Your task to perform on an android device: Search for "acer predator" on ebay.com, select the first entry, add it to the cart, then select checkout. Image 0: 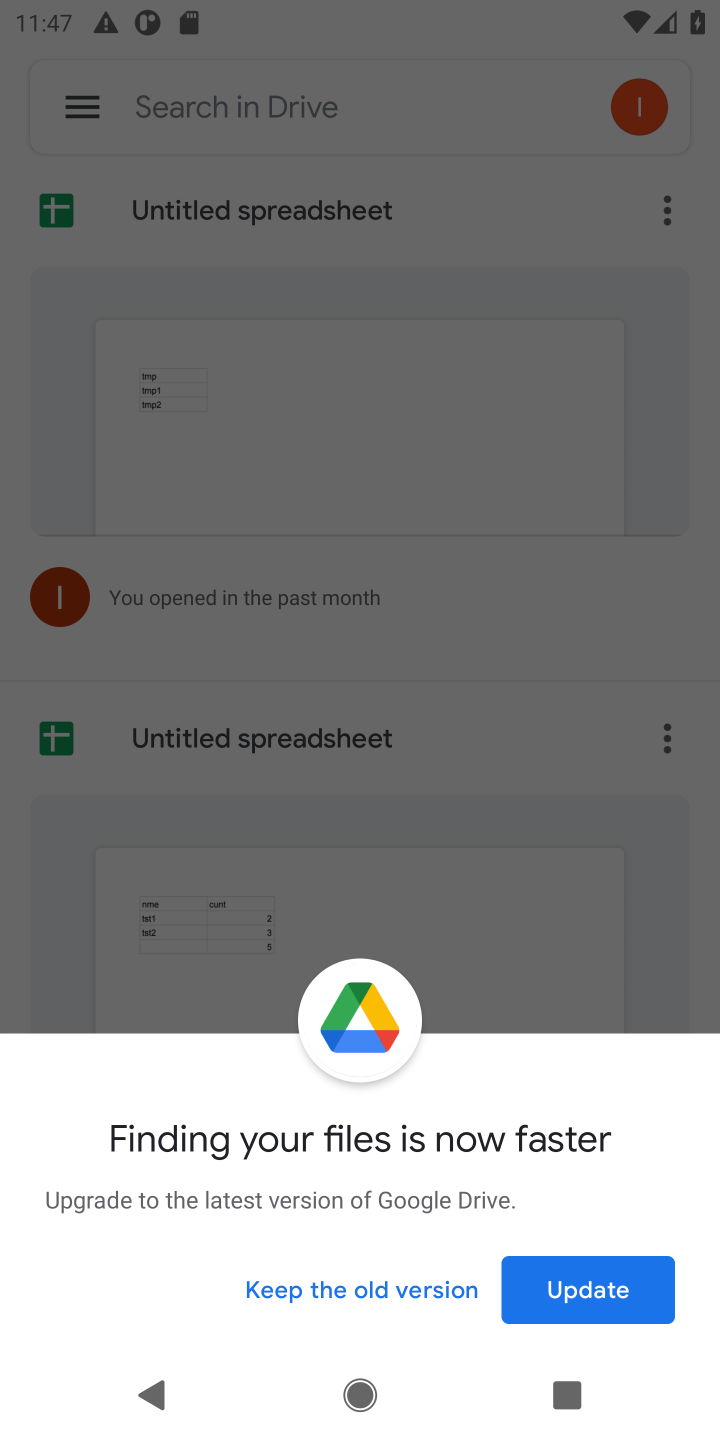
Step 0: press home button
Your task to perform on an android device: Search for "acer predator" on ebay.com, select the first entry, add it to the cart, then select checkout. Image 1: 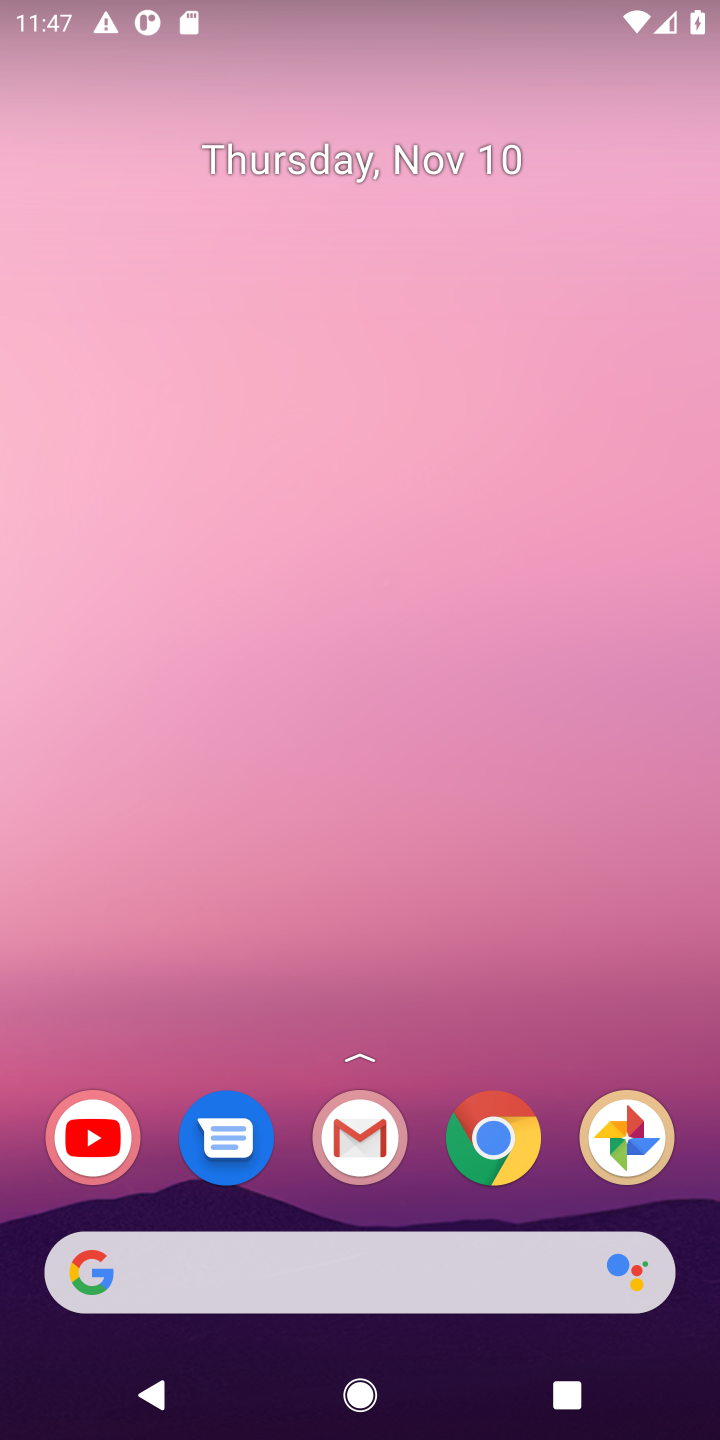
Step 1: click (490, 1134)
Your task to perform on an android device: Search for "acer predator" on ebay.com, select the first entry, add it to the cart, then select checkout. Image 2: 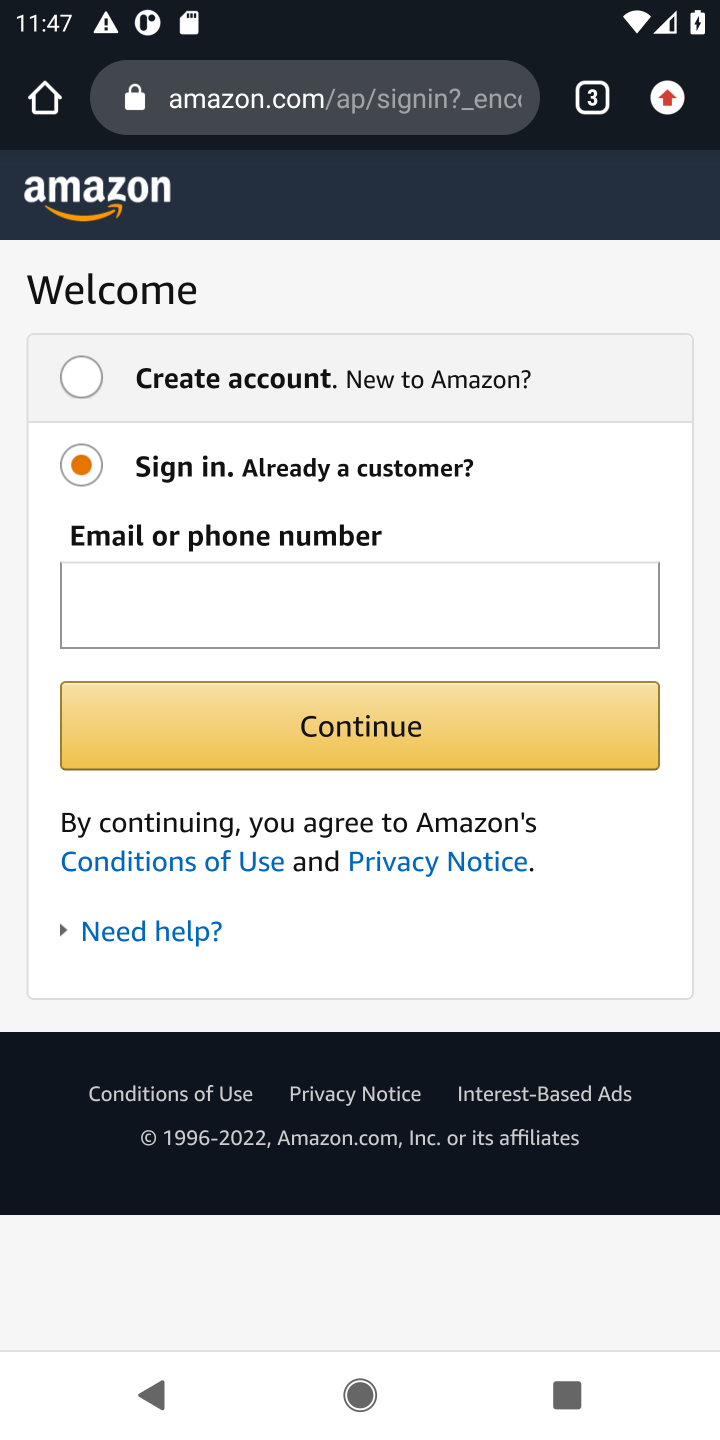
Step 2: click (581, 78)
Your task to perform on an android device: Search for "acer predator" on ebay.com, select the first entry, add it to the cart, then select checkout. Image 3: 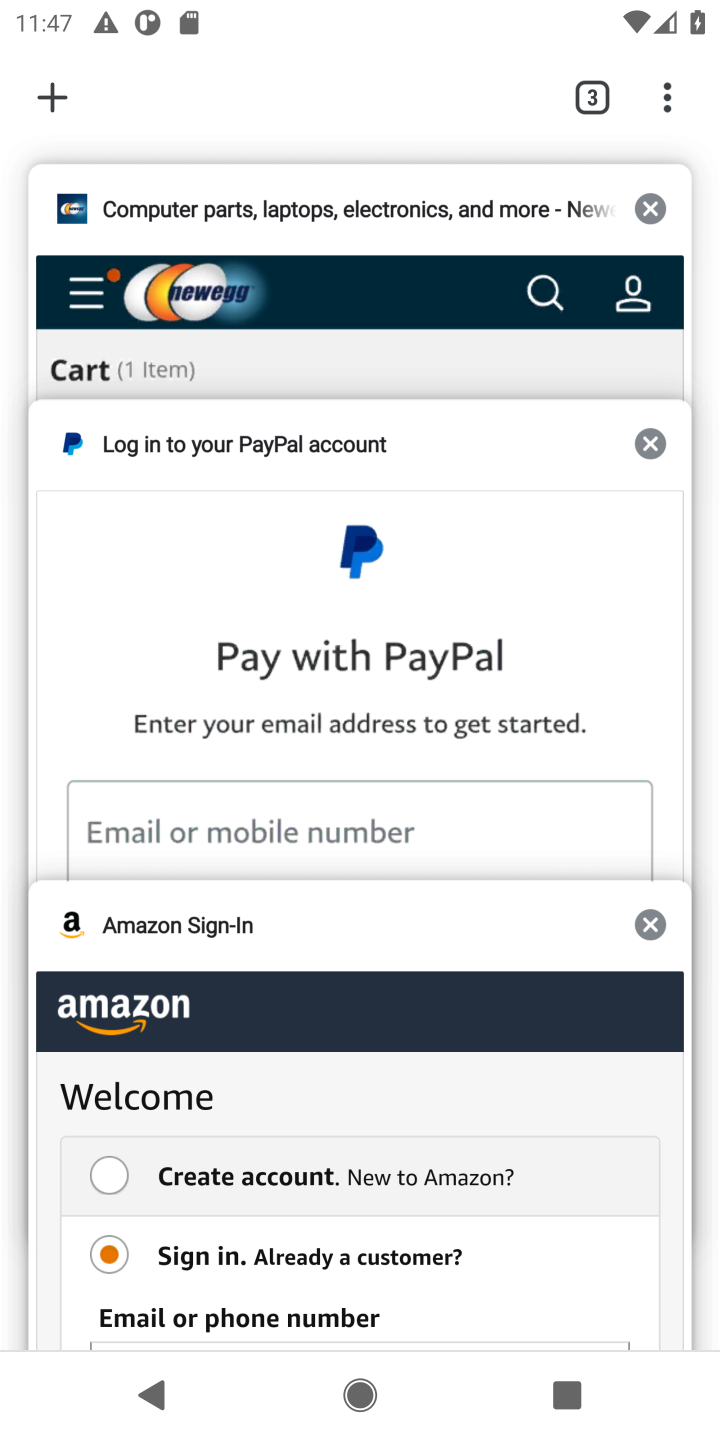
Step 3: click (254, 509)
Your task to perform on an android device: Search for "acer predator" on ebay.com, select the first entry, add it to the cart, then select checkout. Image 4: 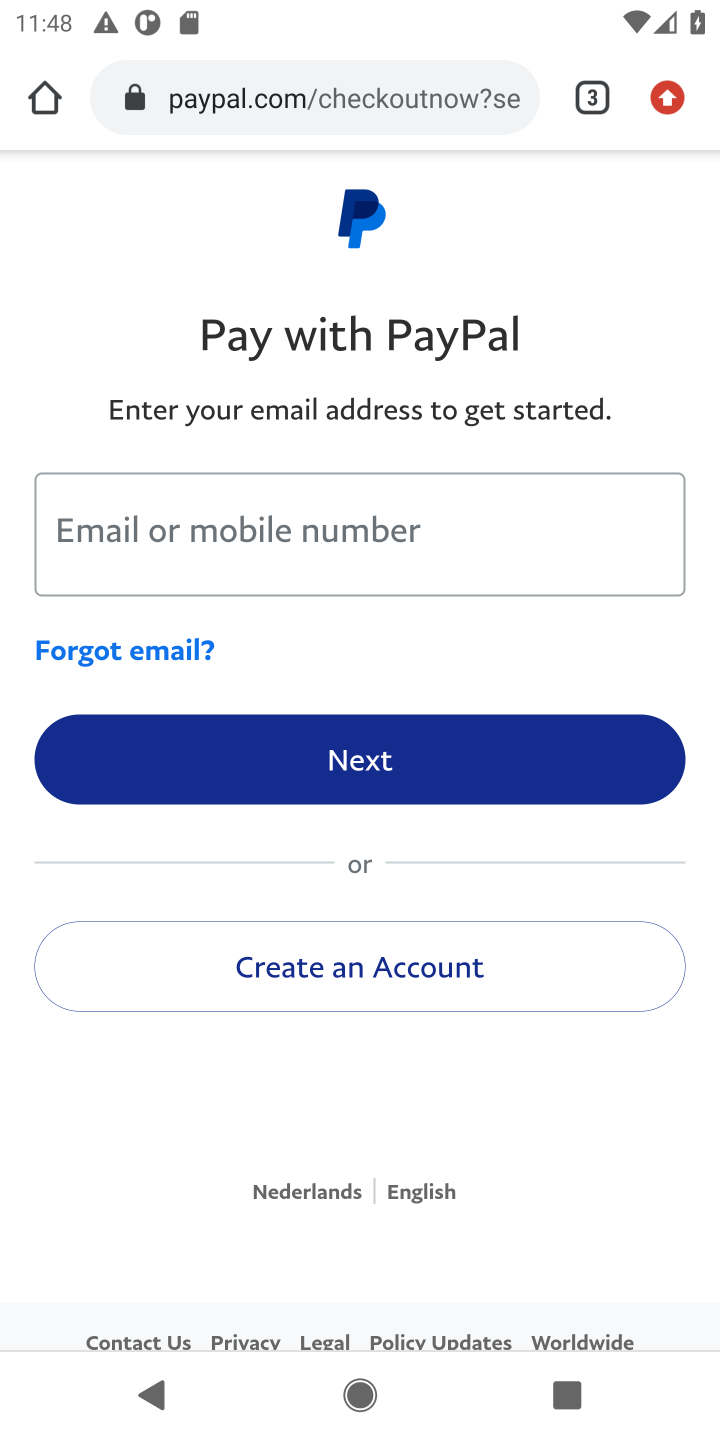
Step 4: press back button
Your task to perform on an android device: Search for "acer predator" on ebay.com, select the first entry, add it to the cart, then select checkout. Image 5: 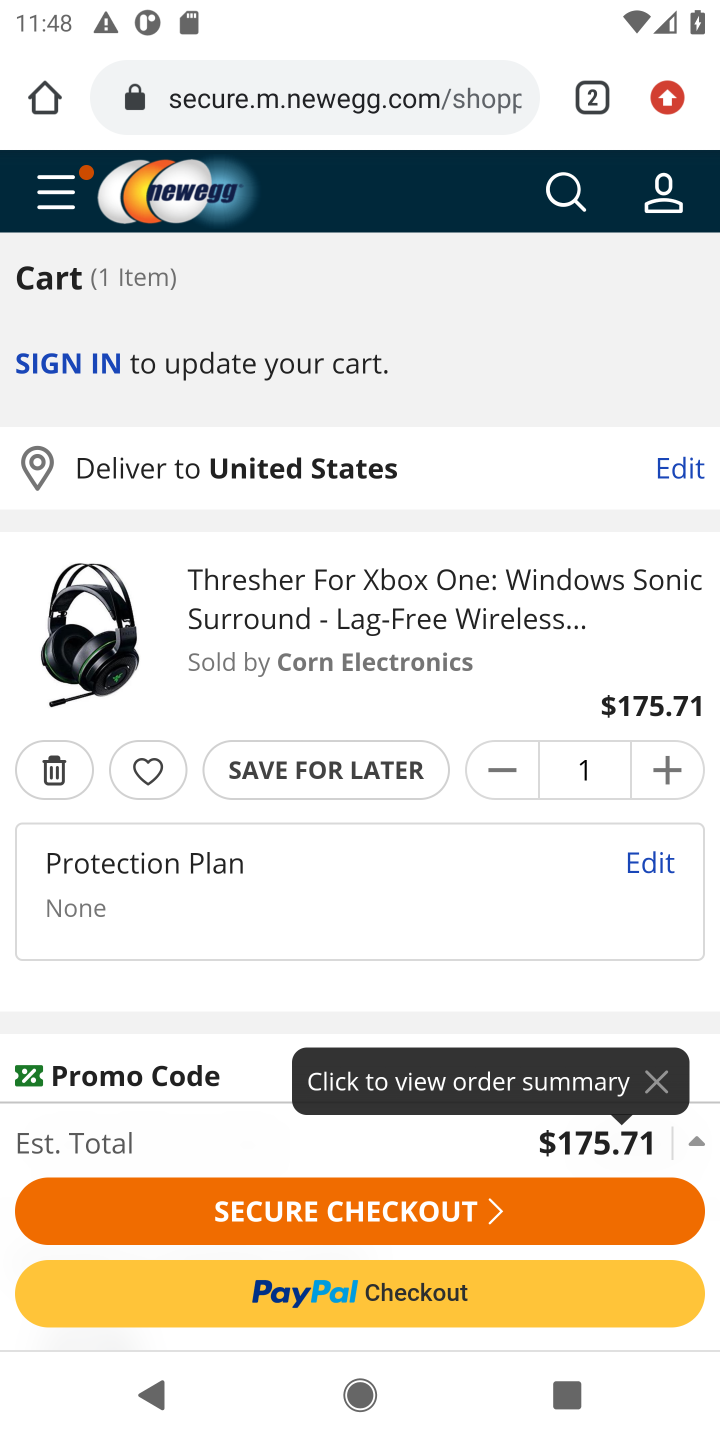
Step 5: click (586, 104)
Your task to perform on an android device: Search for "acer predator" on ebay.com, select the first entry, add it to the cart, then select checkout. Image 6: 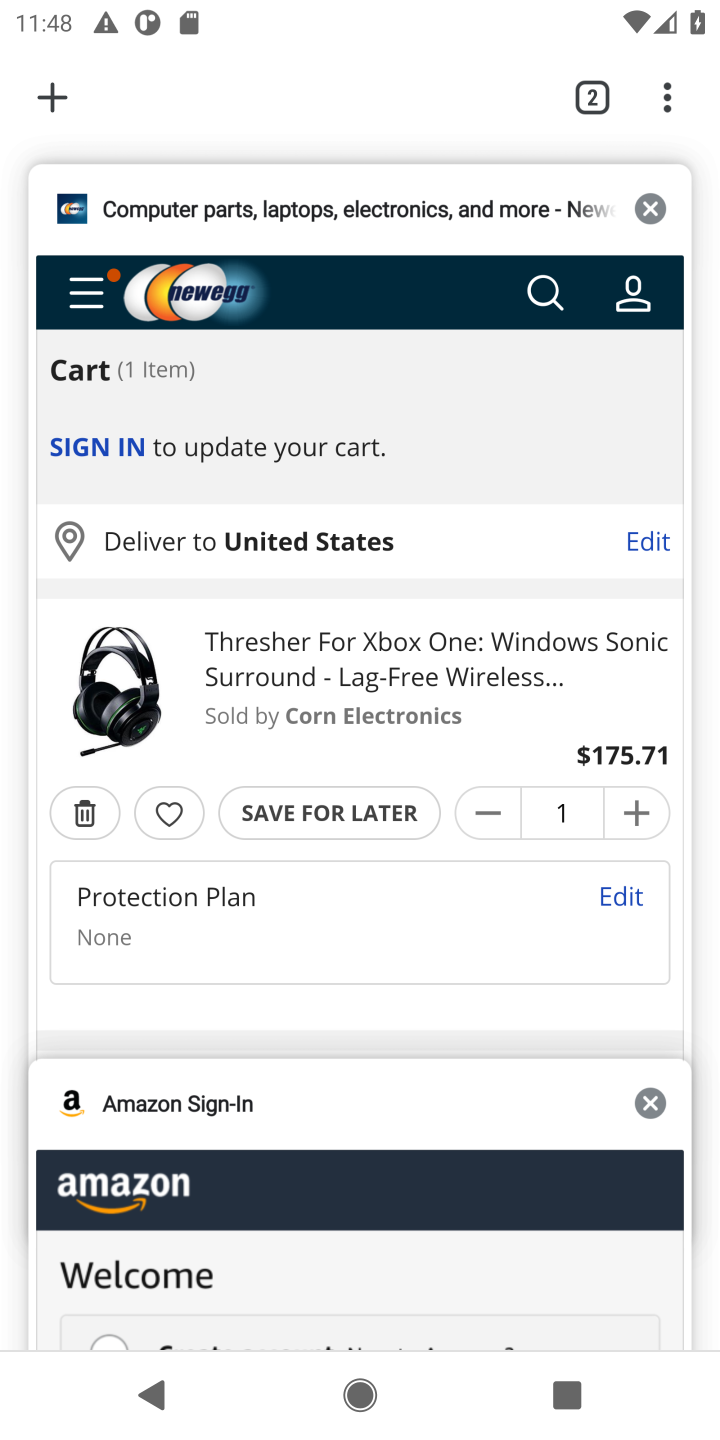
Step 6: click (53, 81)
Your task to perform on an android device: Search for "acer predator" on ebay.com, select the first entry, add it to the cart, then select checkout. Image 7: 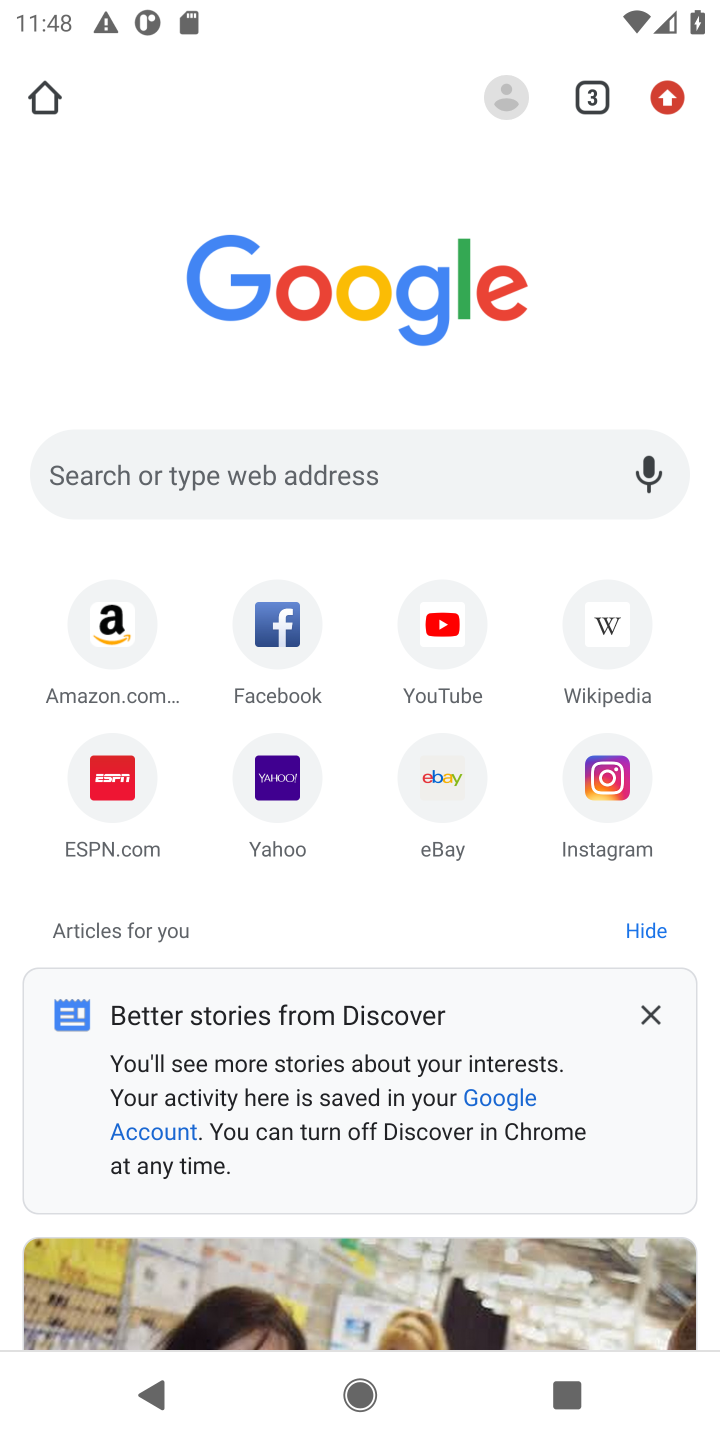
Step 7: click (442, 774)
Your task to perform on an android device: Search for "acer predator" on ebay.com, select the first entry, add it to the cart, then select checkout. Image 8: 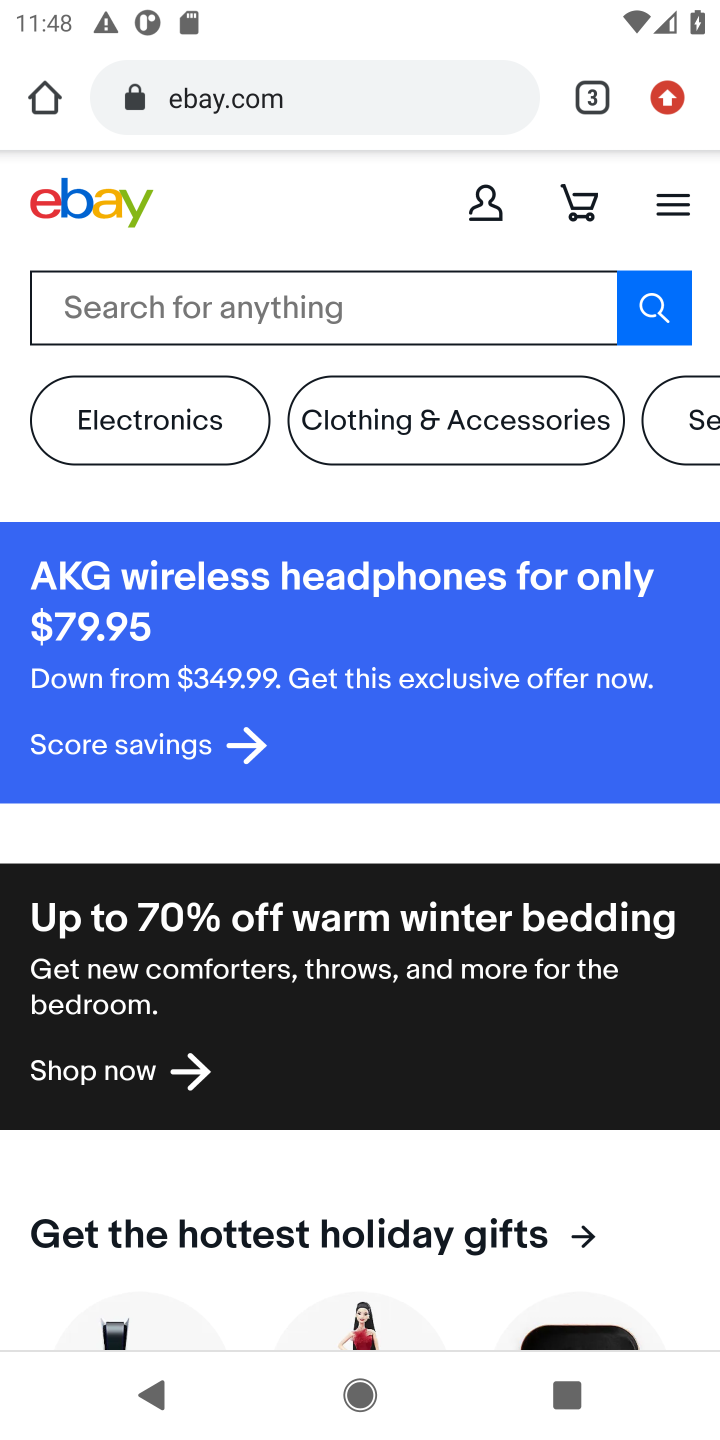
Step 8: click (283, 293)
Your task to perform on an android device: Search for "acer predator" on ebay.com, select the first entry, add it to the cart, then select checkout. Image 9: 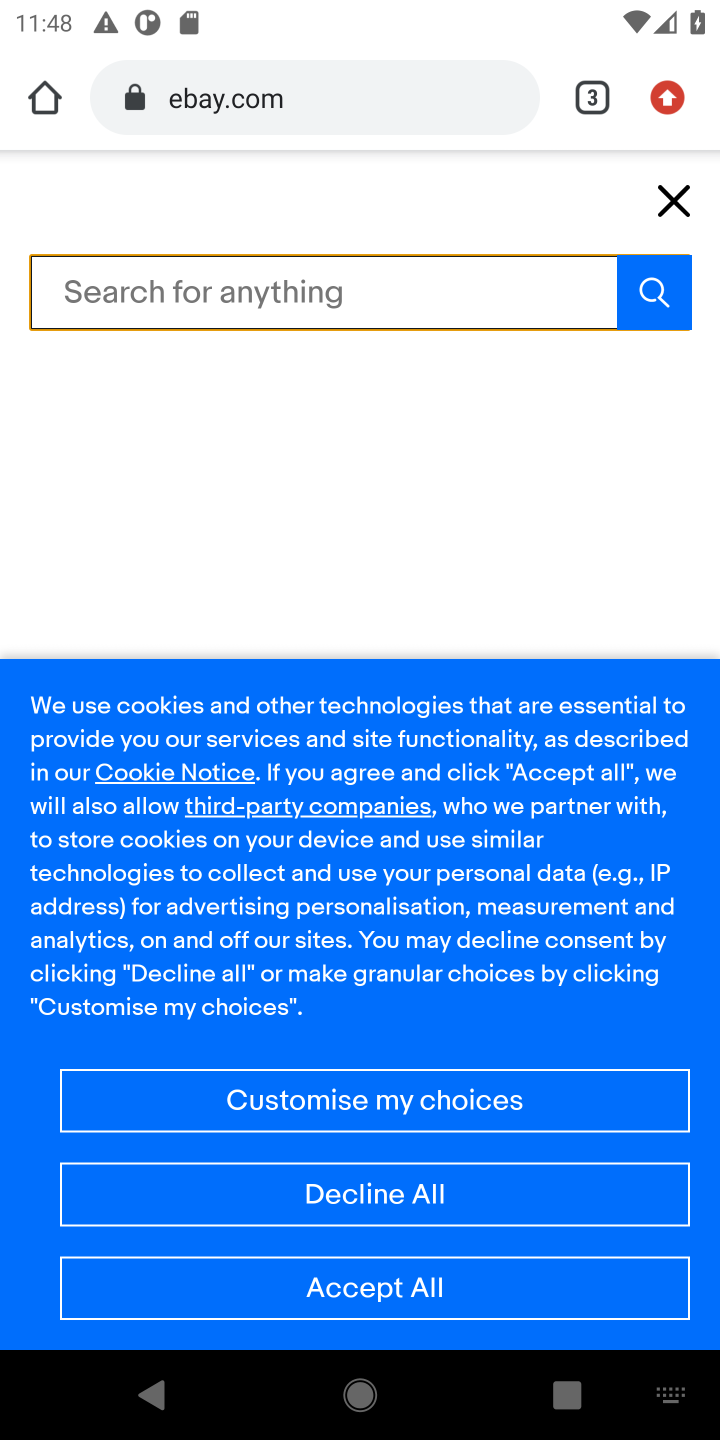
Step 9: type "acer predator"
Your task to perform on an android device: Search for "acer predator" on ebay.com, select the first entry, add it to the cart, then select checkout. Image 10: 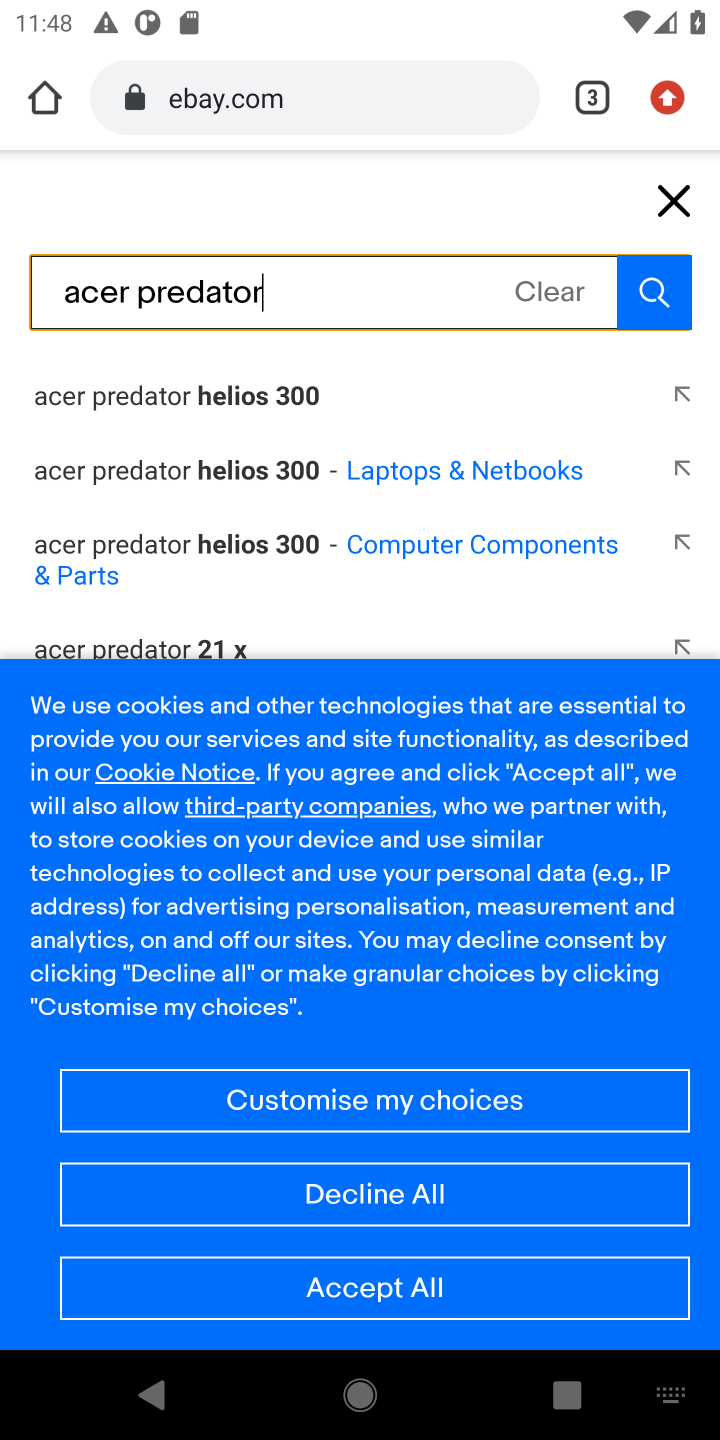
Step 10: click (250, 1204)
Your task to perform on an android device: Search for "acer predator" on ebay.com, select the first entry, add it to the cart, then select checkout. Image 11: 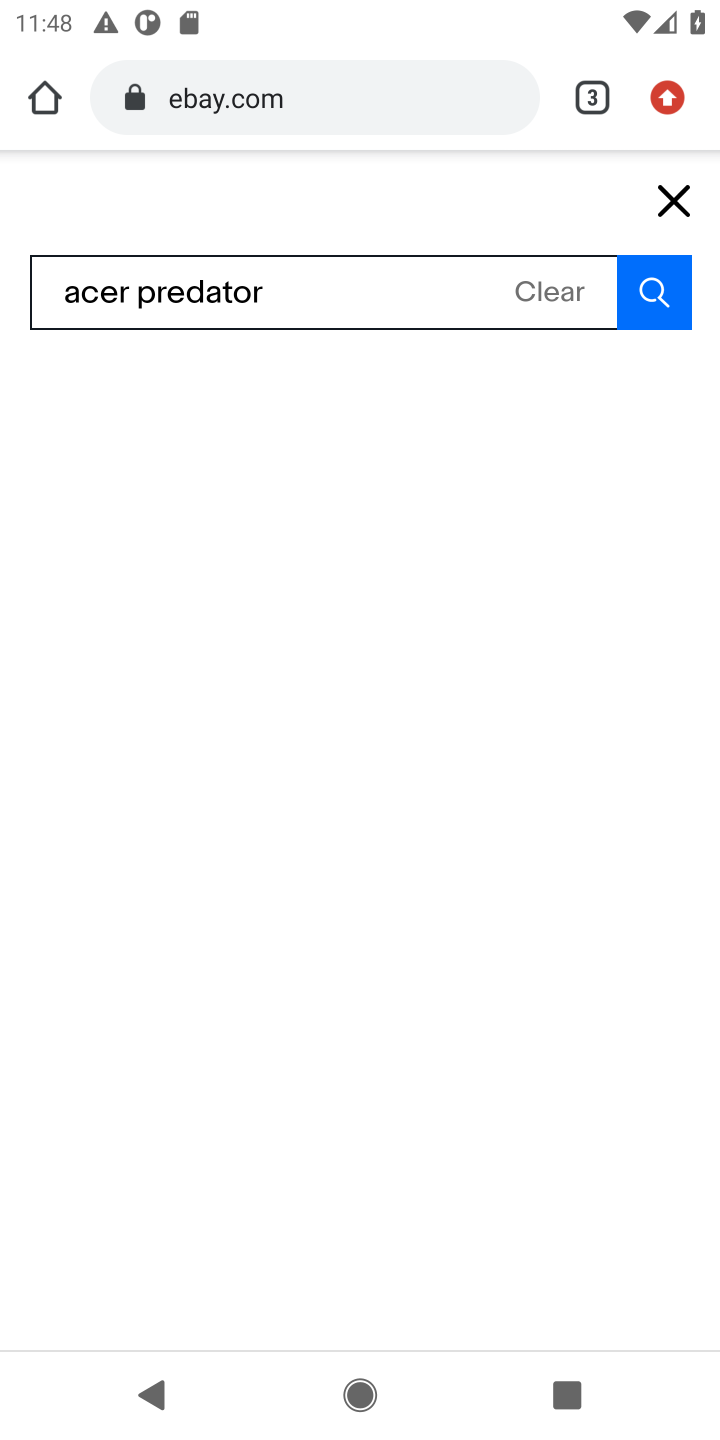
Step 11: click (646, 281)
Your task to perform on an android device: Search for "acer predator" on ebay.com, select the first entry, add it to the cart, then select checkout. Image 12: 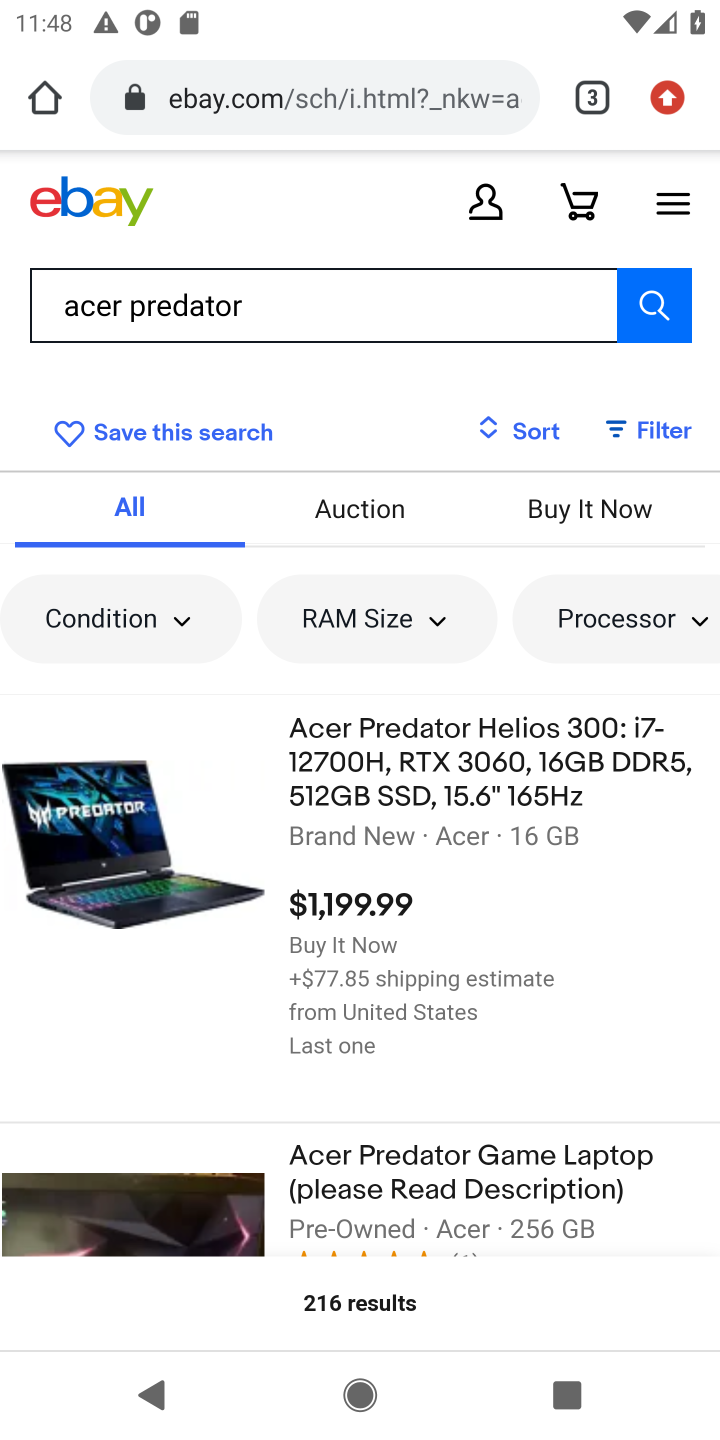
Step 12: click (452, 755)
Your task to perform on an android device: Search for "acer predator" on ebay.com, select the first entry, add it to the cart, then select checkout. Image 13: 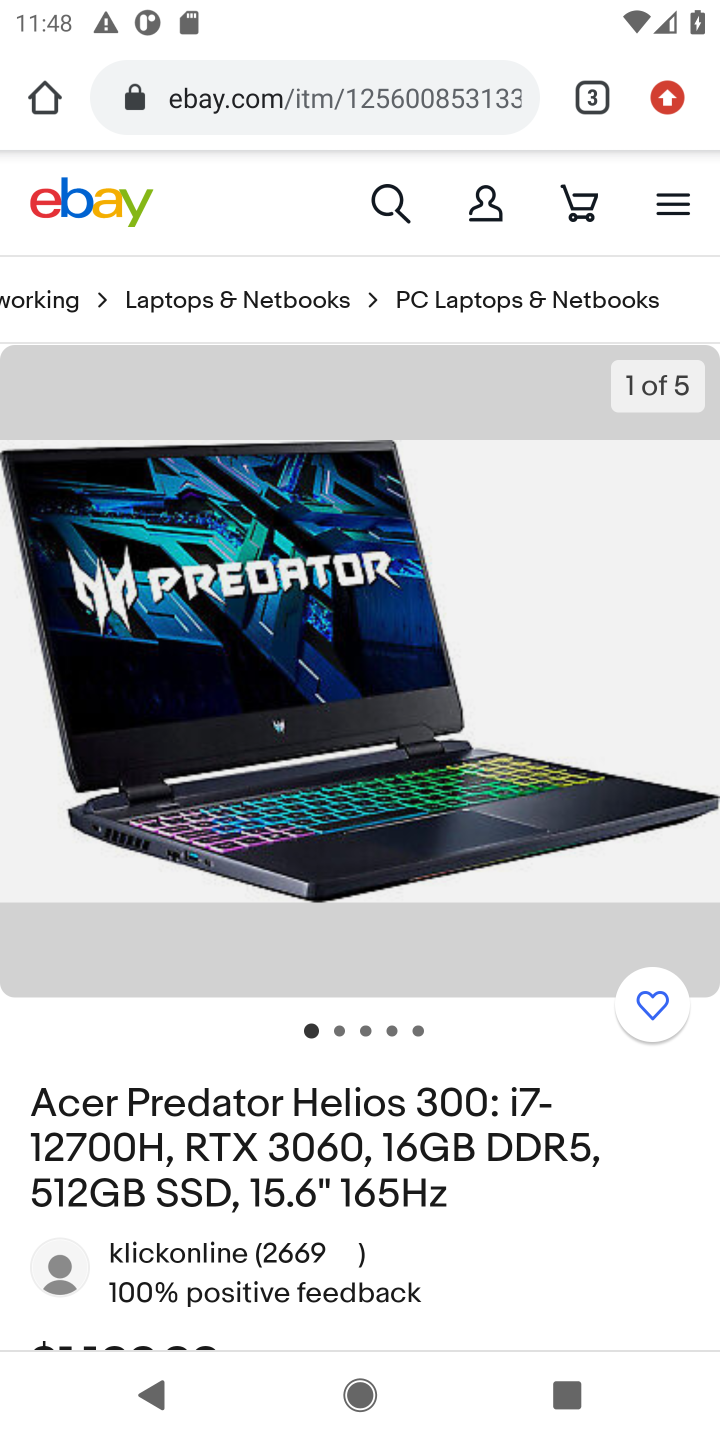
Step 13: drag from (379, 1255) to (659, 0)
Your task to perform on an android device: Search for "acer predator" on ebay.com, select the first entry, add it to the cart, then select checkout. Image 14: 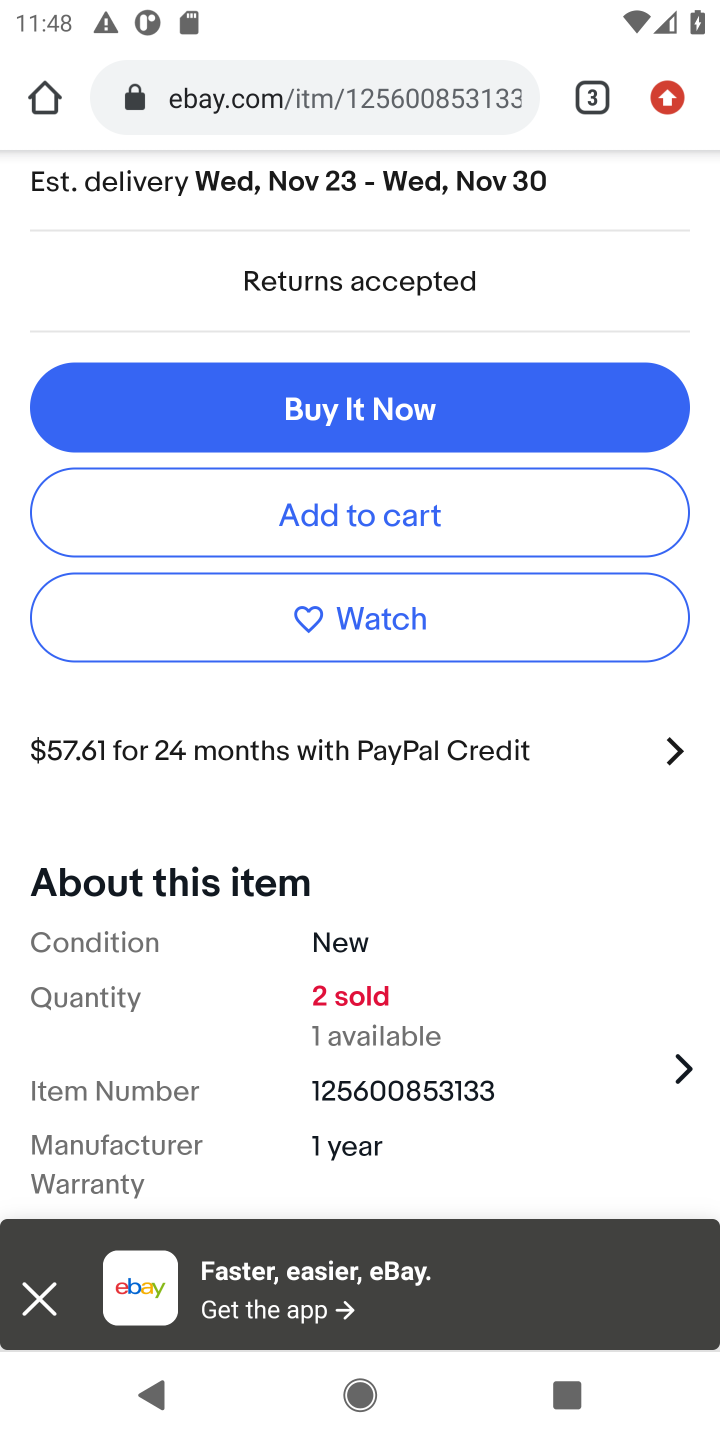
Step 14: click (414, 529)
Your task to perform on an android device: Search for "acer predator" on ebay.com, select the first entry, add it to the cart, then select checkout. Image 15: 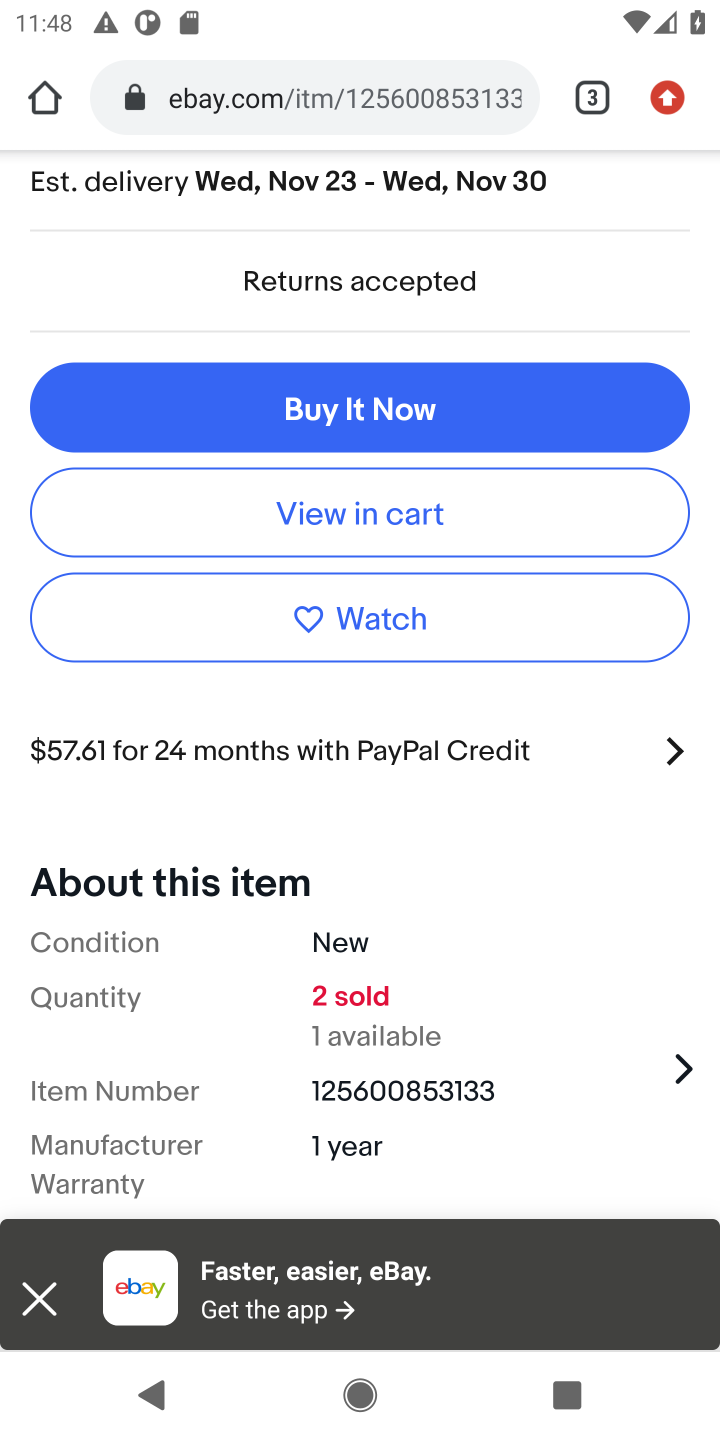
Step 15: click (442, 531)
Your task to perform on an android device: Search for "acer predator" on ebay.com, select the first entry, add it to the cart, then select checkout. Image 16: 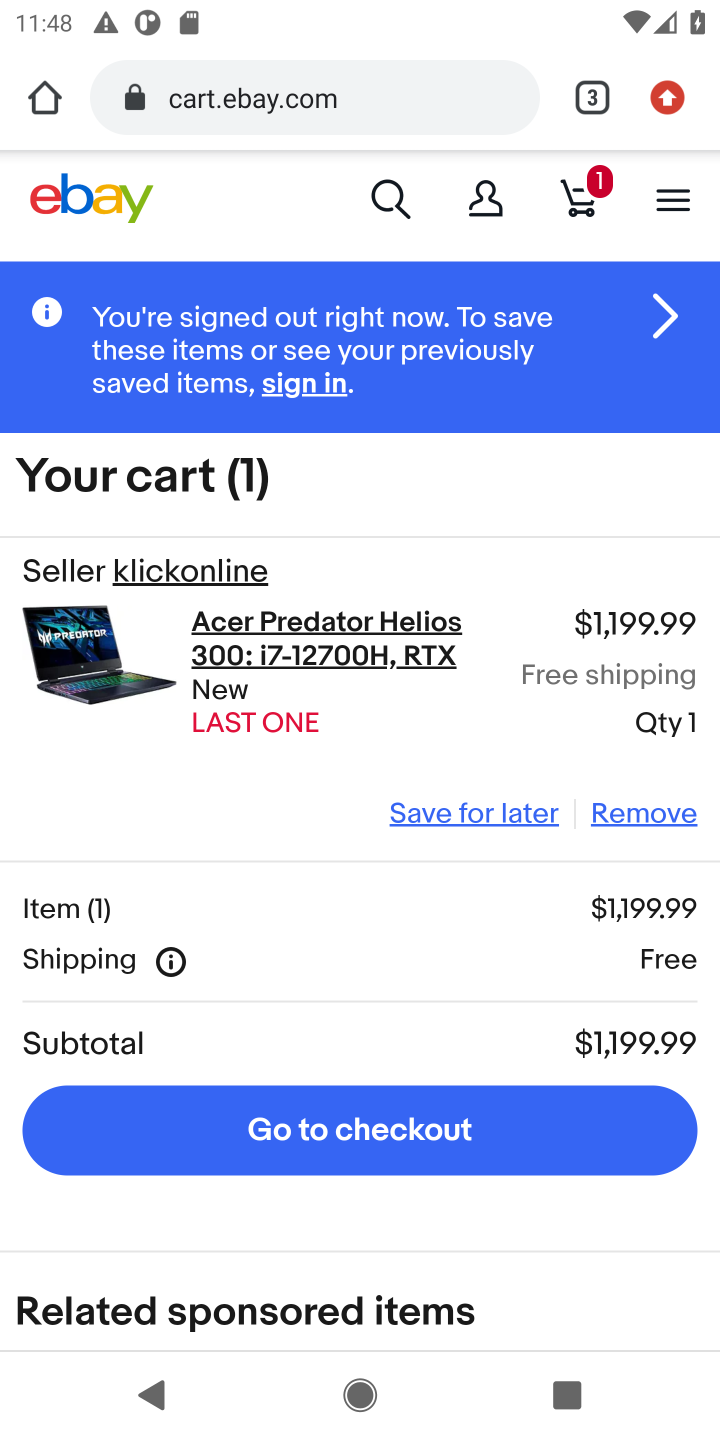
Step 16: click (353, 1149)
Your task to perform on an android device: Search for "acer predator" on ebay.com, select the first entry, add it to the cart, then select checkout. Image 17: 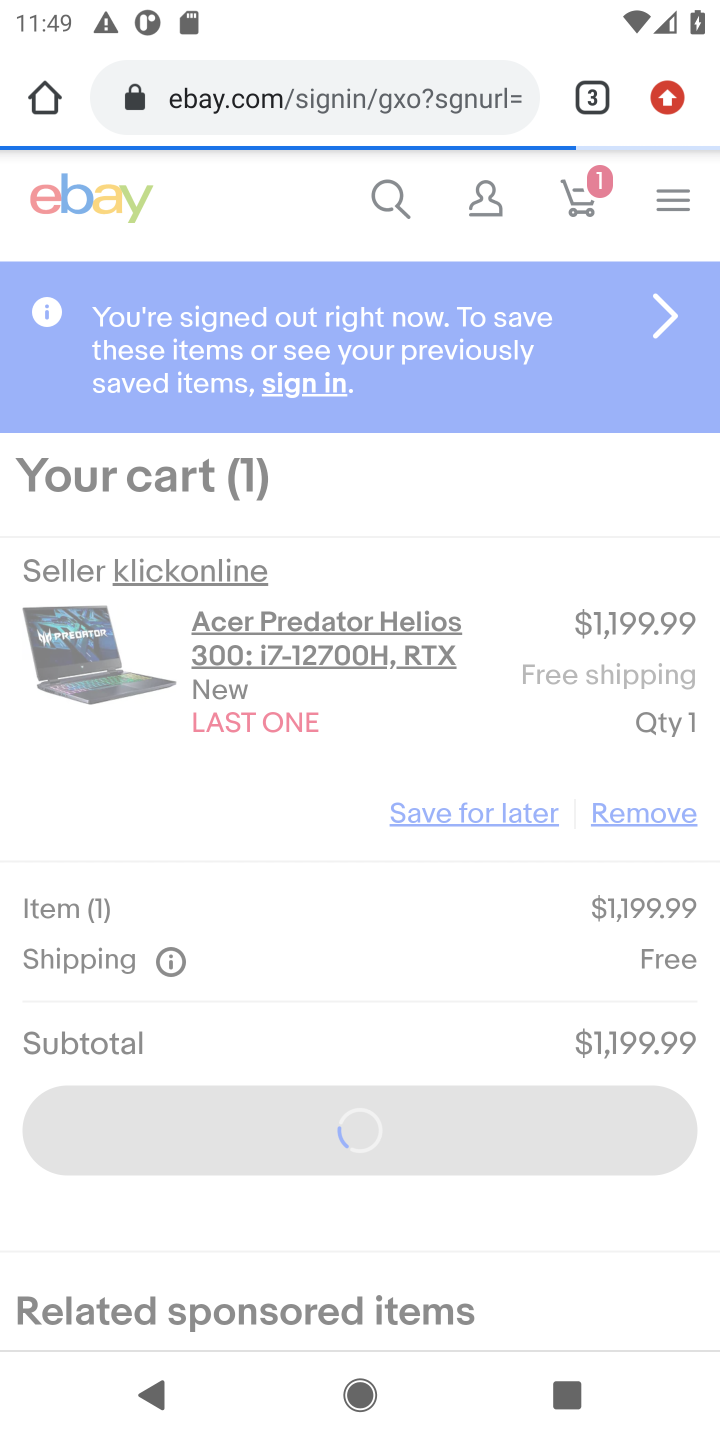
Step 17: task complete